Your task to perform on an android device: turn off wifi Image 0: 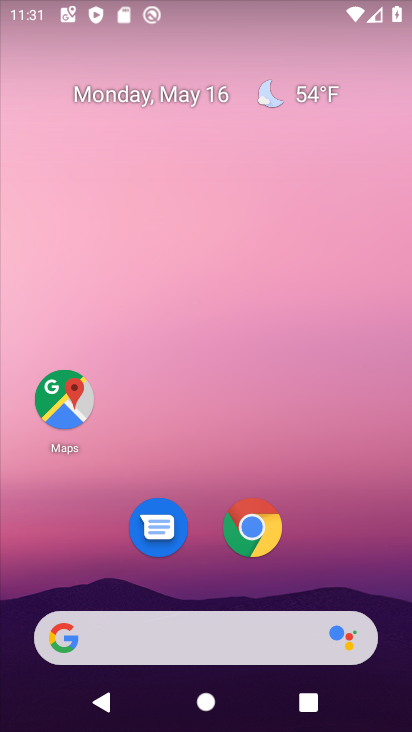
Step 0: drag from (268, 658) to (245, 158)
Your task to perform on an android device: turn off wifi Image 1: 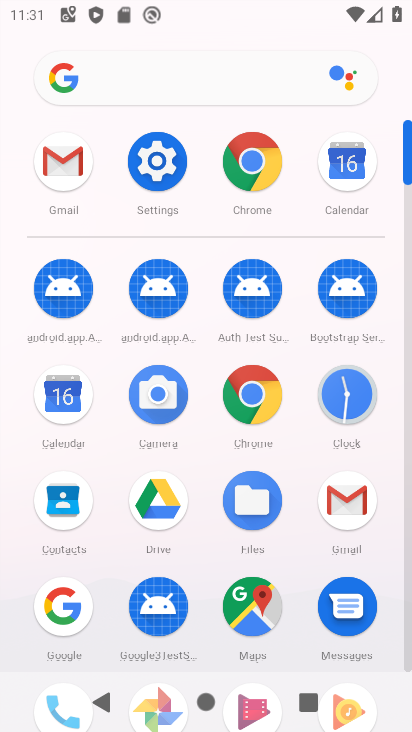
Step 1: click (165, 150)
Your task to perform on an android device: turn off wifi Image 2: 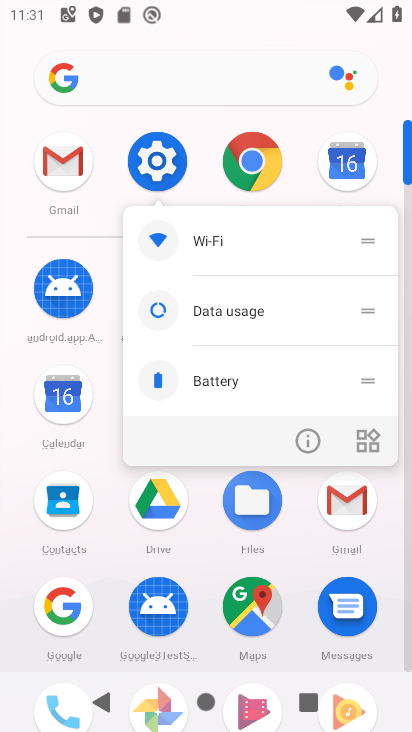
Step 2: click (162, 159)
Your task to perform on an android device: turn off wifi Image 3: 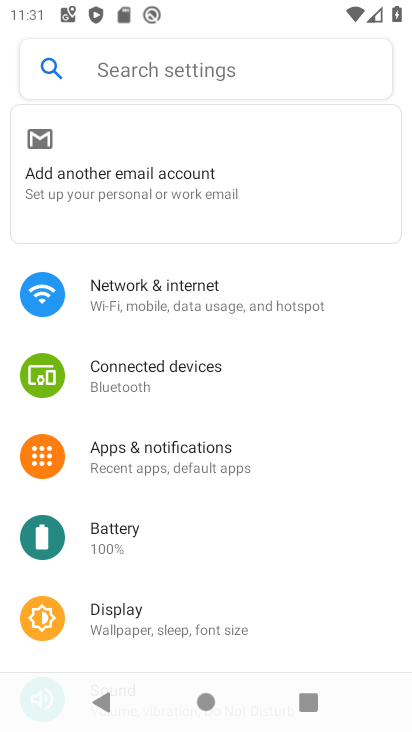
Step 3: click (180, 286)
Your task to perform on an android device: turn off wifi Image 4: 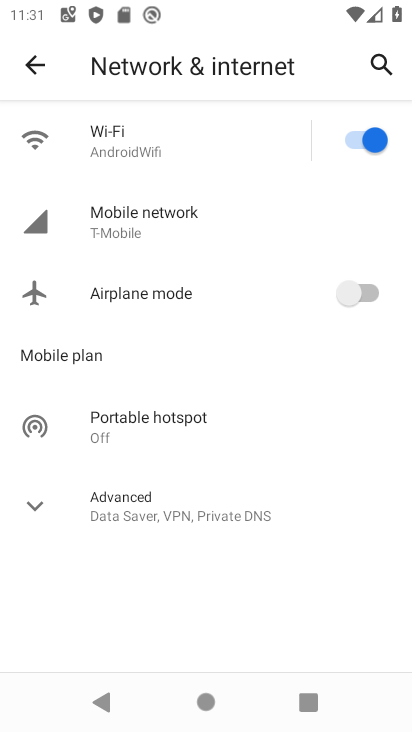
Step 4: click (360, 135)
Your task to perform on an android device: turn off wifi Image 5: 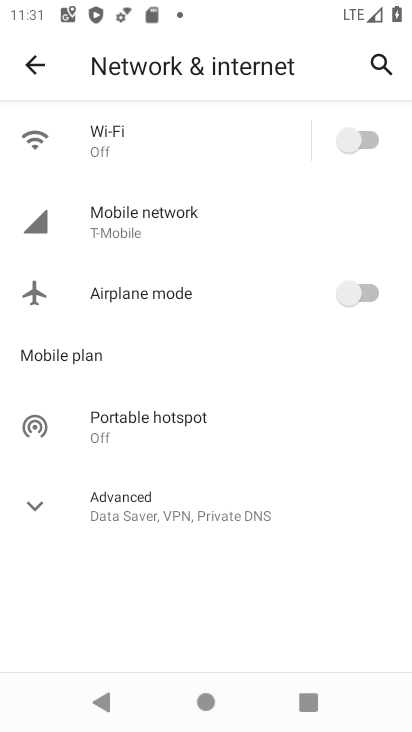
Step 5: task complete